Your task to perform on an android device: remove spam from my inbox in the gmail app Image 0: 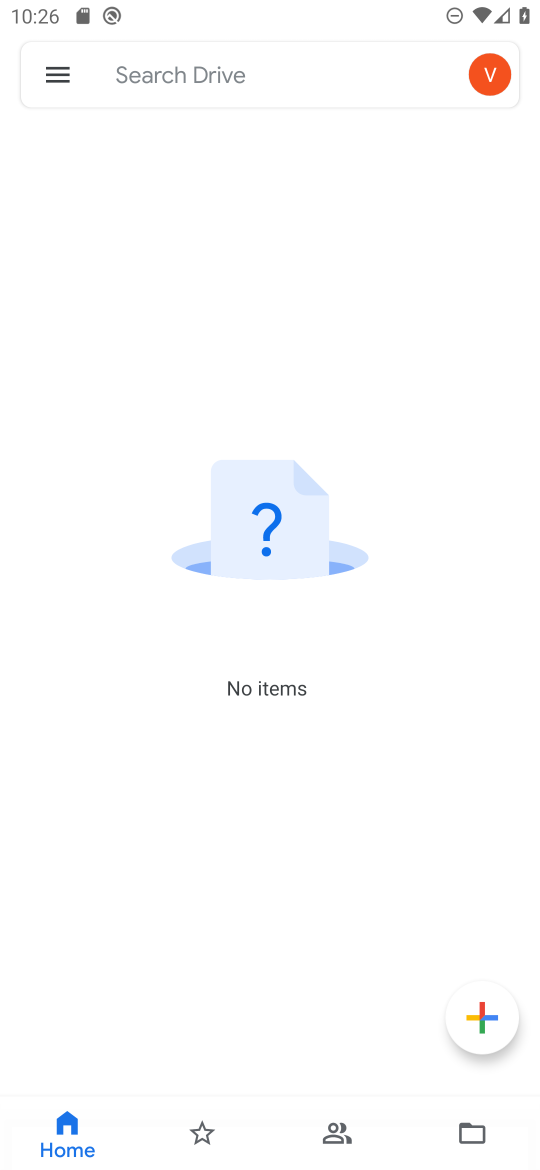
Step 0: press home button
Your task to perform on an android device: remove spam from my inbox in the gmail app Image 1: 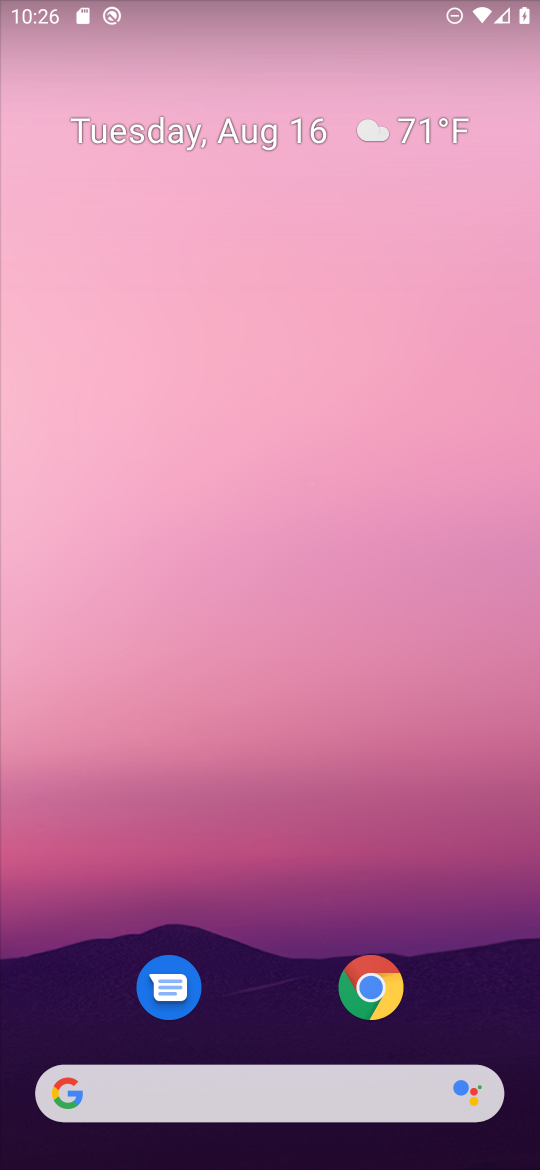
Step 1: drag from (25, 1121) to (248, 401)
Your task to perform on an android device: remove spam from my inbox in the gmail app Image 2: 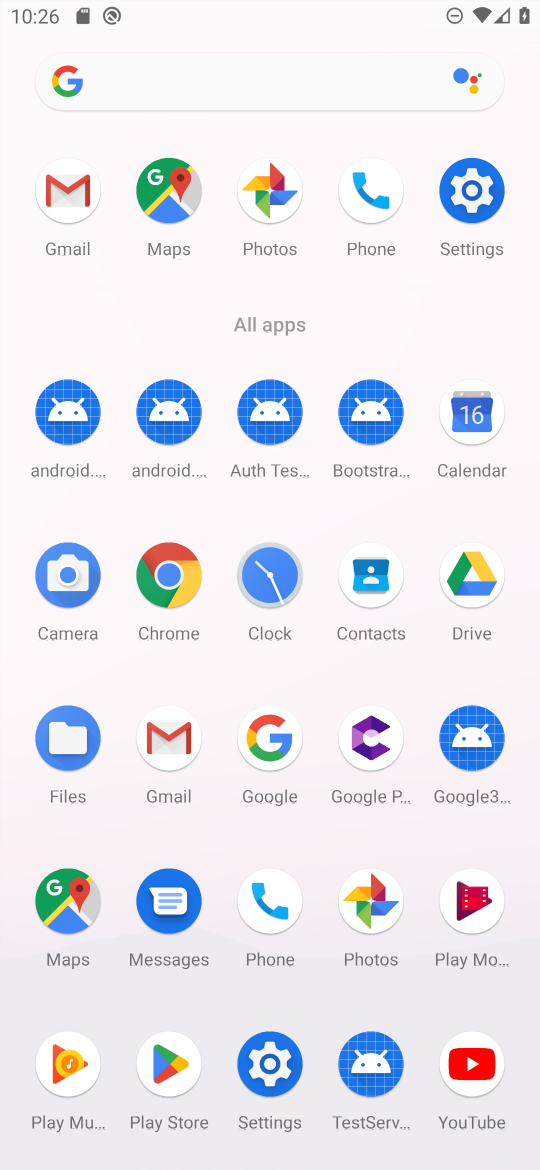
Step 2: click (158, 727)
Your task to perform on an android device: remove spam from my inbox in the gmail app Image 3: 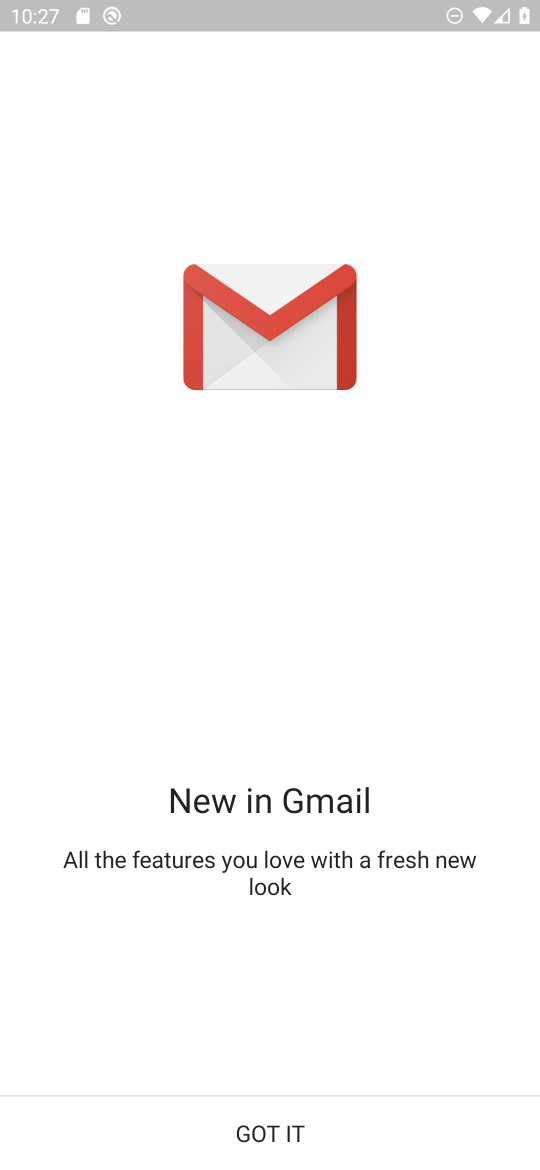
Step 3: click (258, 1140)
Your task to perform on an android device: remove spam from my inbox in the gmail app Image 4: 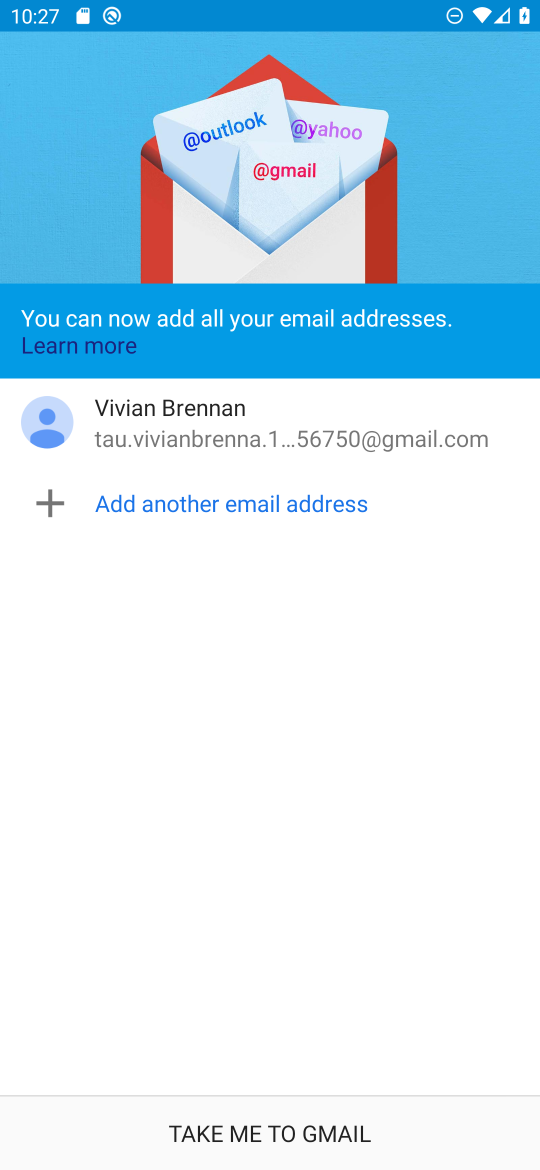
Step 4: click (258, 1140)
Your task to perform on an android device: remove spam from my inbox in the gmail app Image 5: 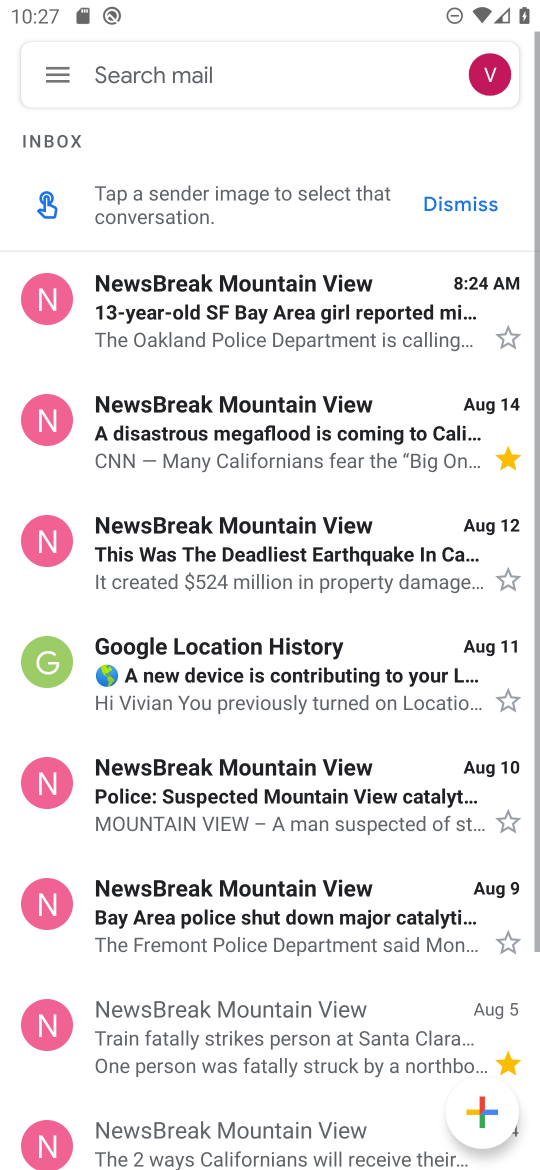
Step 5: click (45, 67)
Your task to perform on an android device: remove spam from my inbox in the gmail app Image 6: 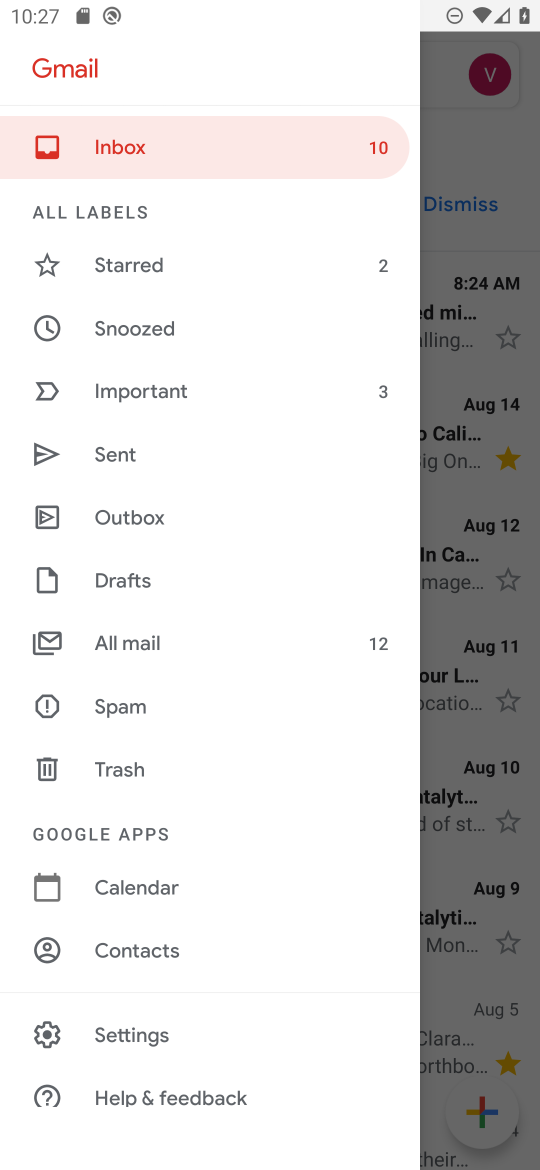
Step 6: click (125, 704)
Your task to perform on an android device: remove spam from my inbox in the gmail app Image 7: 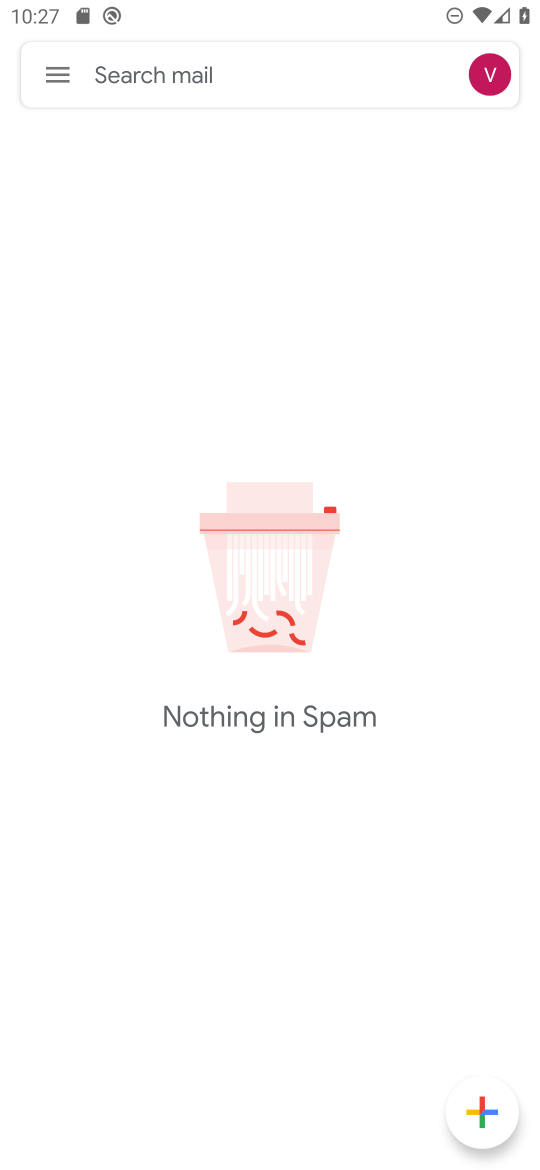
Step 7: task complete